Your task to perform on an android device: Search for pizza restaurants on Maps Image 0: 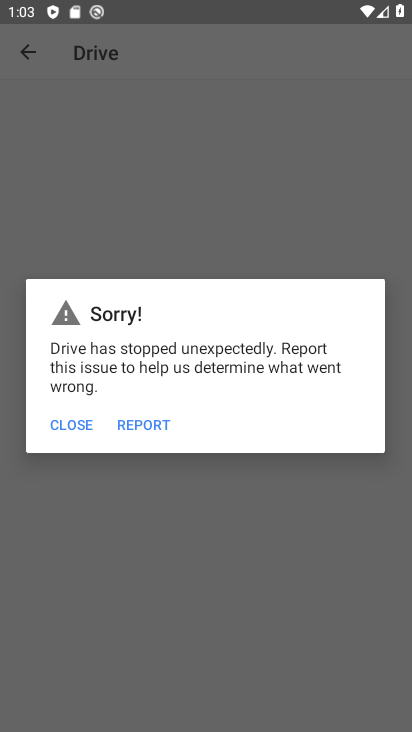
Step 0: press back button
Your task to perform on an android device: Search for pizza restaurants on Maps Image 1: 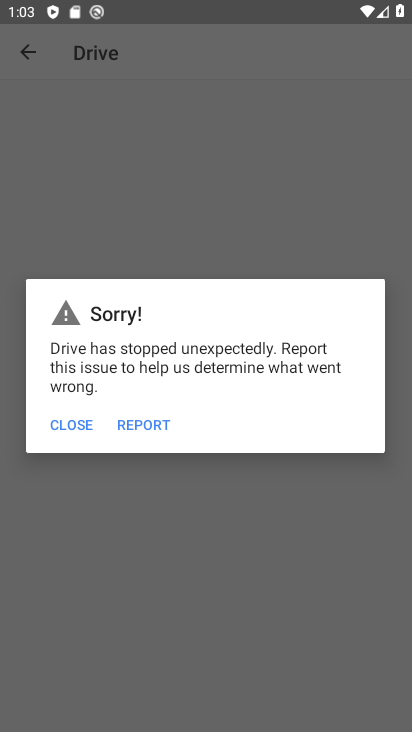
Step 1: press home button
Your task to perform on an android device: Search for pizza restaurants on Maps Image 2: 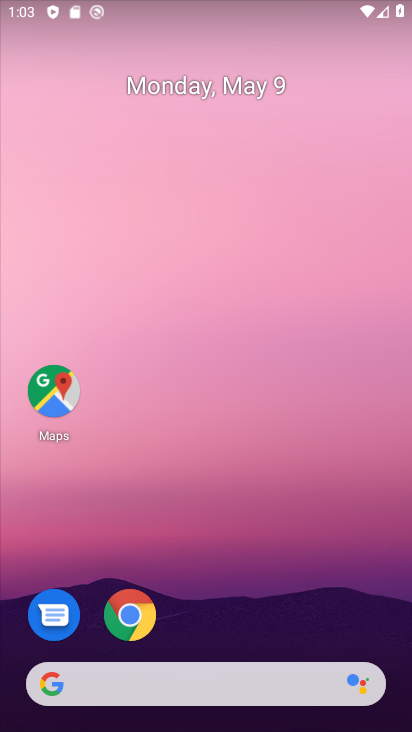
Step 2: click (62, 427)
Your task to perform on an android device: Search for pizza restaurants on Maps Image 3: 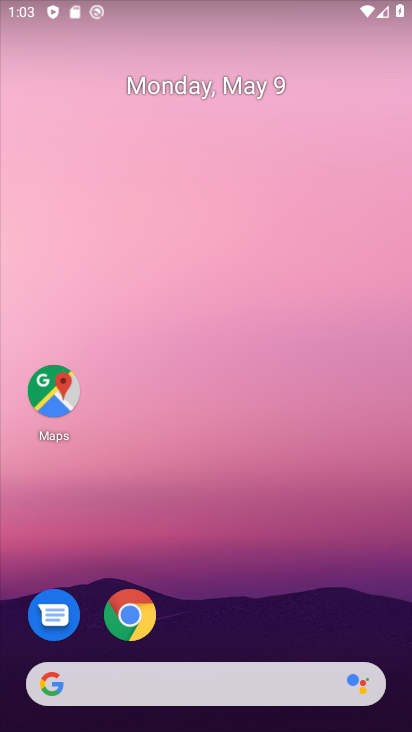
Step 3: click (62, 427)
Your task to perform on an android device: Search for pizza restaurants on Maps Image 4: 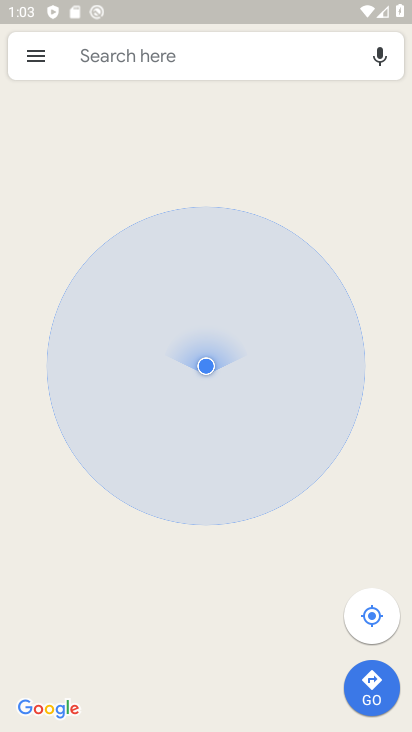
Step 4: click (210, 63)
Your task to perform on an android device: Search for pizza restaurants on Maps Image 5: 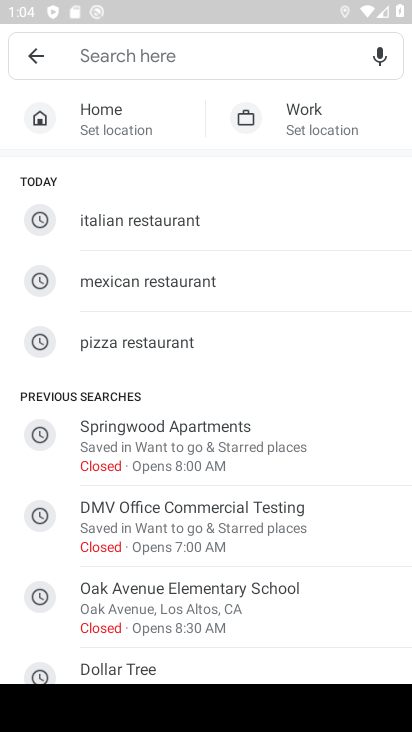
Step 5: type "pizza restaurants "
Your task to perform on an android device: Search for pizza restaurants on Maps Image 6: 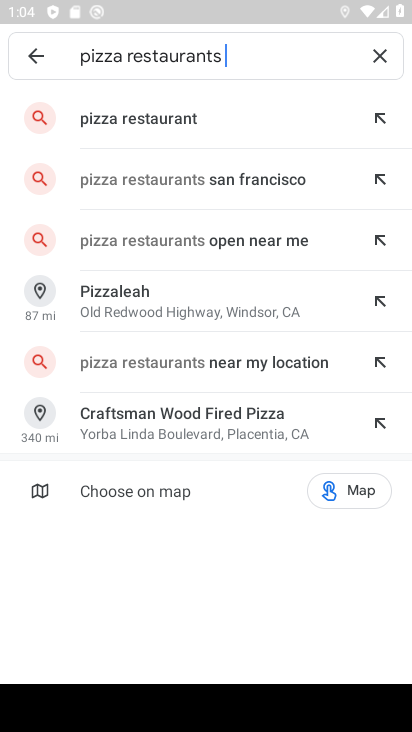
Step 6: click (250, 114)
Your task to perform on an android device: Search for pizza restaurants on Maps Image 7: 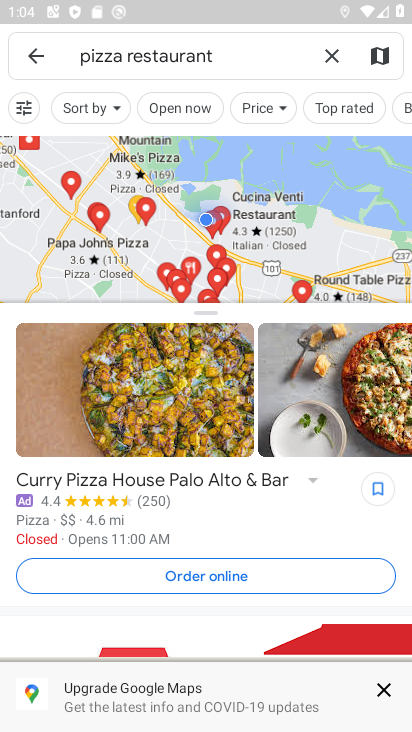
Step 7: click (393, 682)
Your task to perform on an android device: Search for pizza restaurants on Maps Image 8: 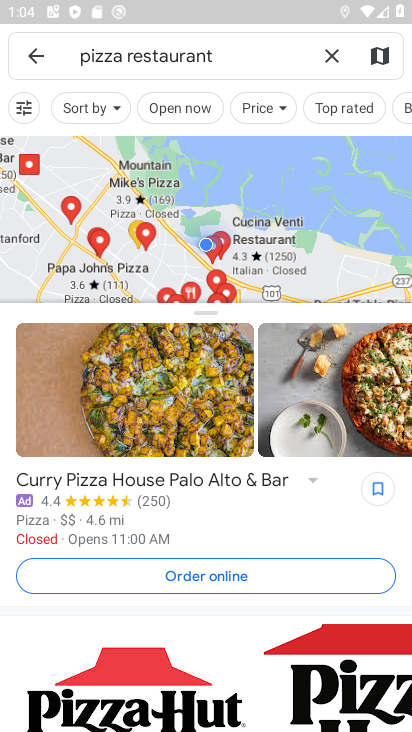
Step 8: task complete